Your task to perform on an android device: turn smart compose on in the gmail app Image 0: 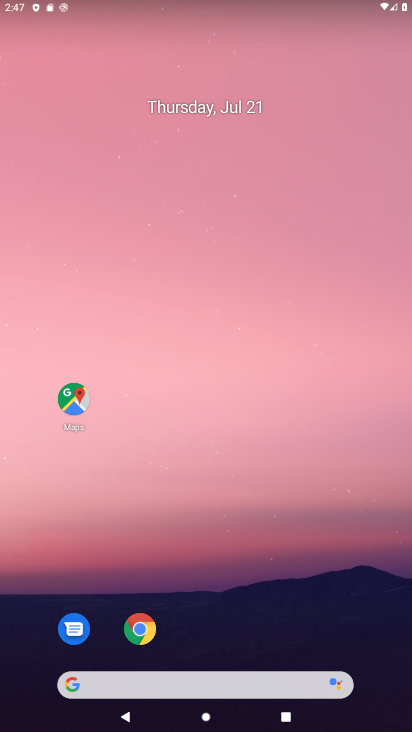
Step 0: drag from (362, 663) to (303, 27)
Your task to perform on an android device: turn smart compose on in the gmail app Image 1: 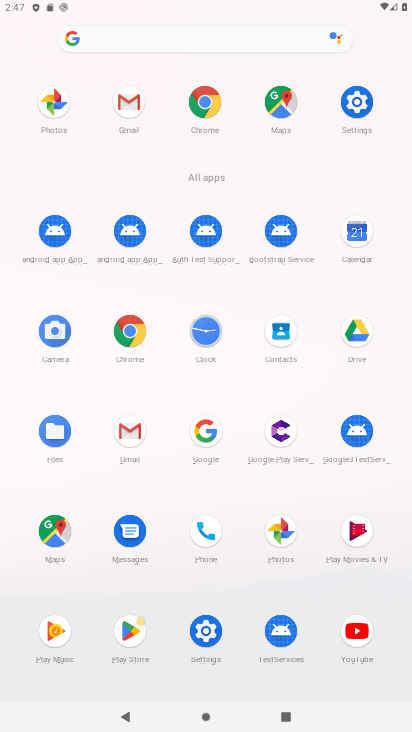
Step 1: click (123, 440)
Your task to perform on an android device: turn smart compose on in the gmail app Image 2: 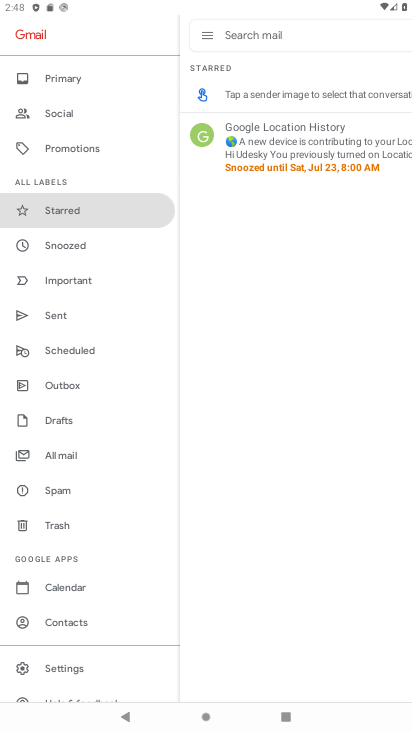
Step 2: click (66, 670)
Your task to perform on an android device: turn smart compose on in the gmail app Image 3: 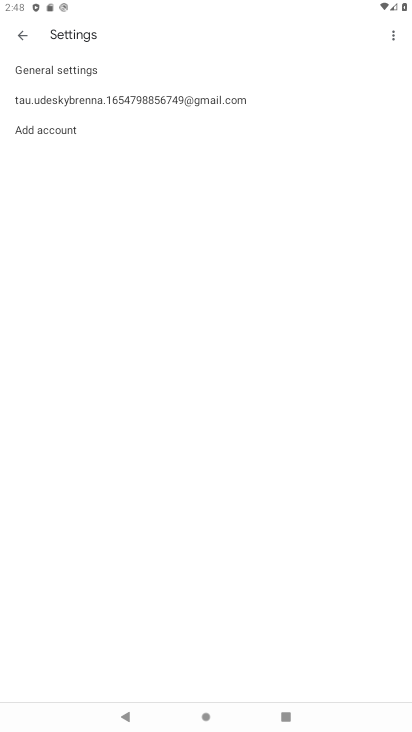
Step 3: click (90, 93)
Your task to perform on an android device: turn smart compose on in the gmail app Image 4: 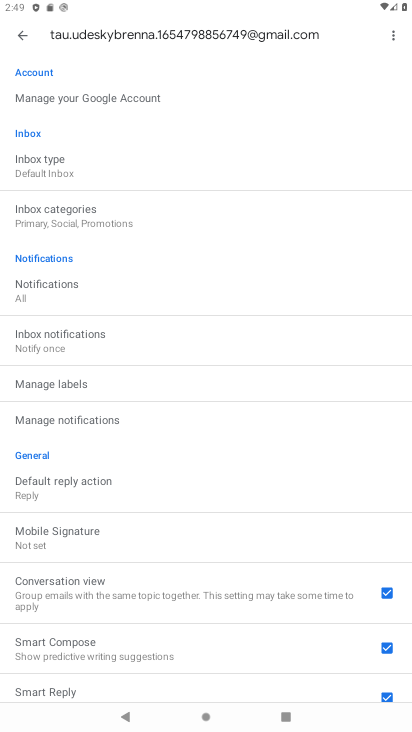
Step 4: task complete